Your task to perform on an android device: open a new tab in the chrome app Image 0: 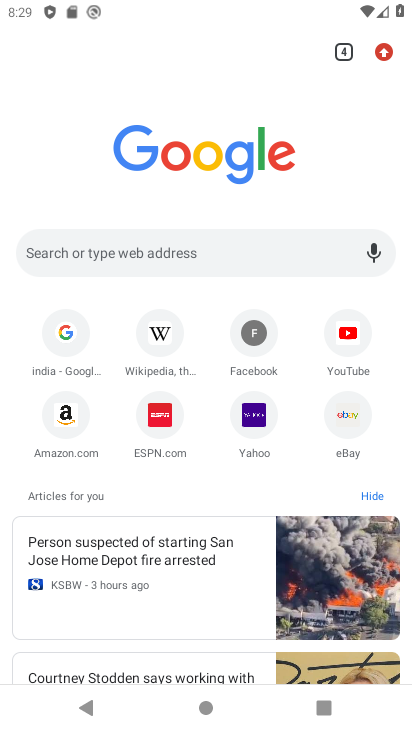
Step 0: task complete